Your task to perform on an android device: toggle wifi Image 0: 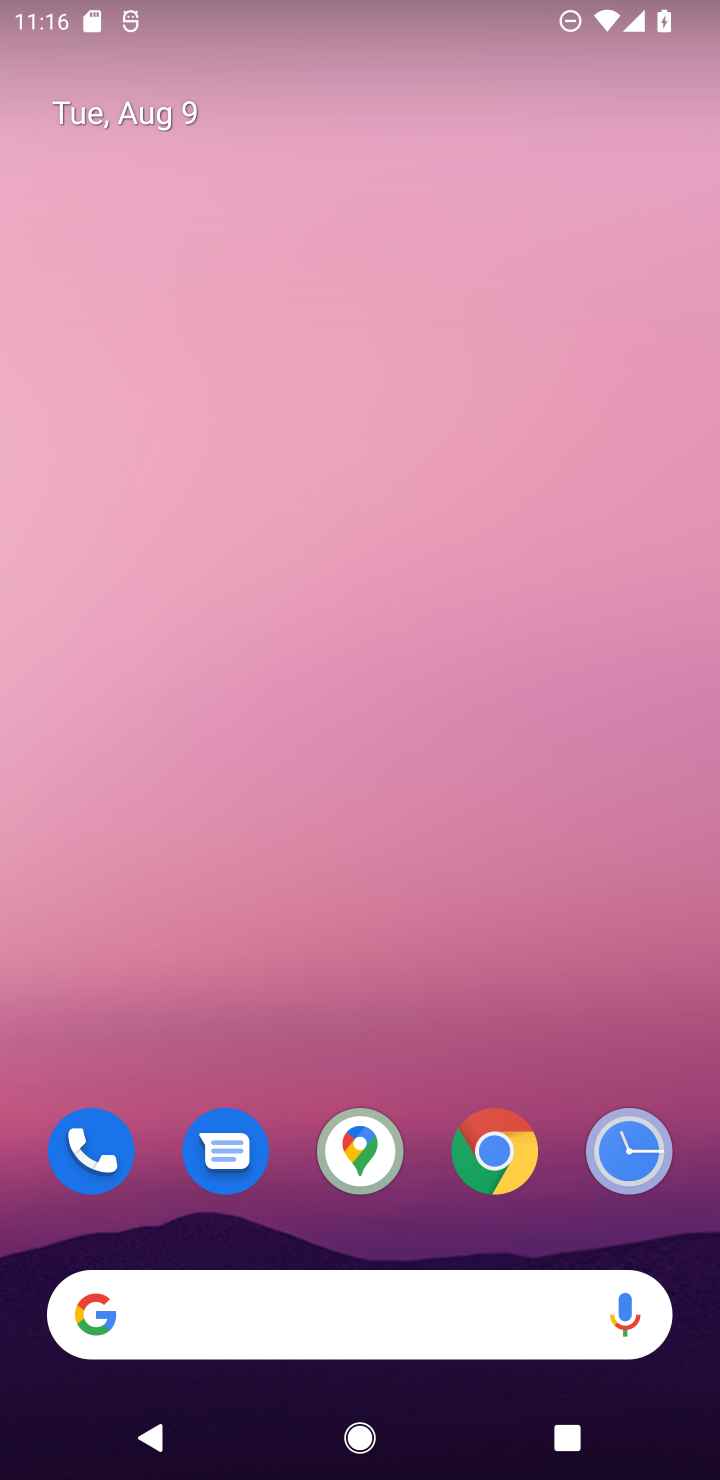
Step 0: drag from (196, 7) to (199, 1247)
Your task to perform on an android device: toggle wifi Image 1: 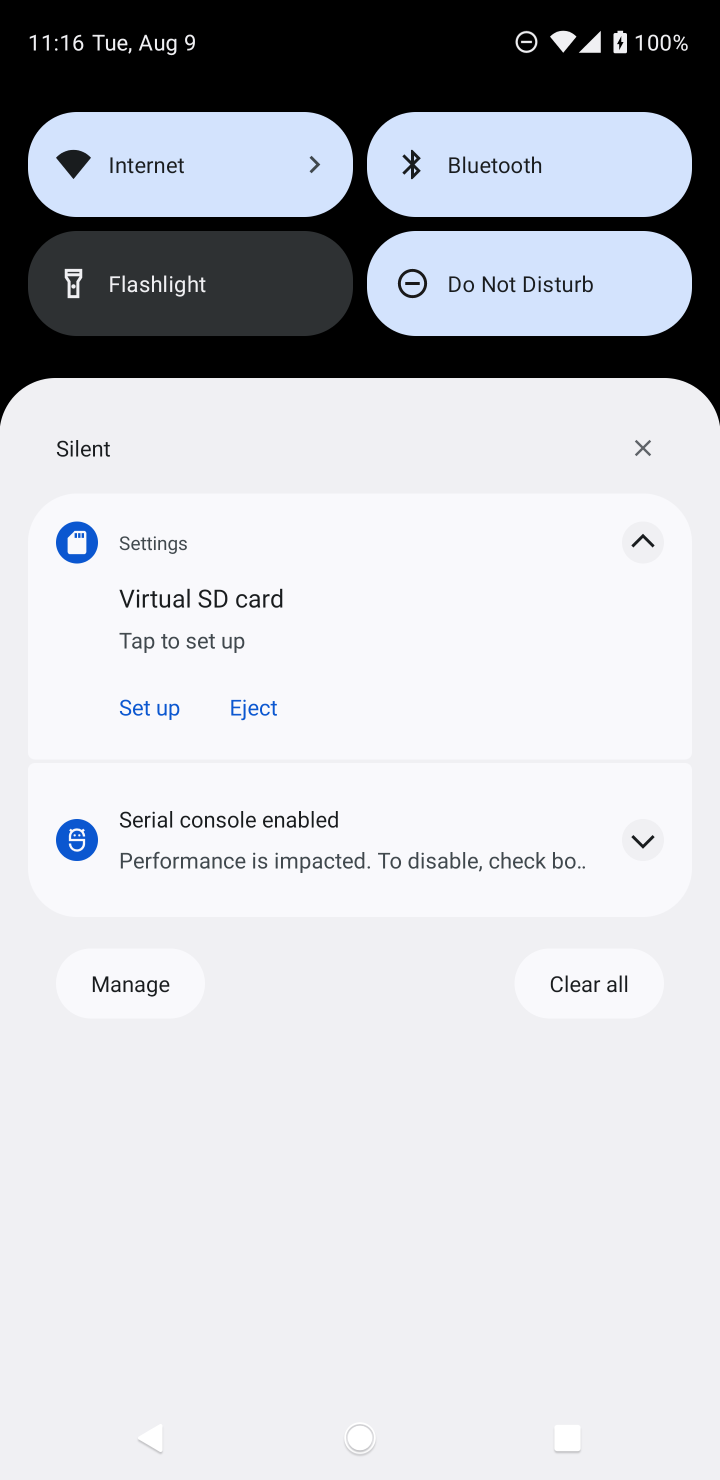
Step 1: click (306, 162)
Your task to perform on an android device: toggle wifi Image 2: 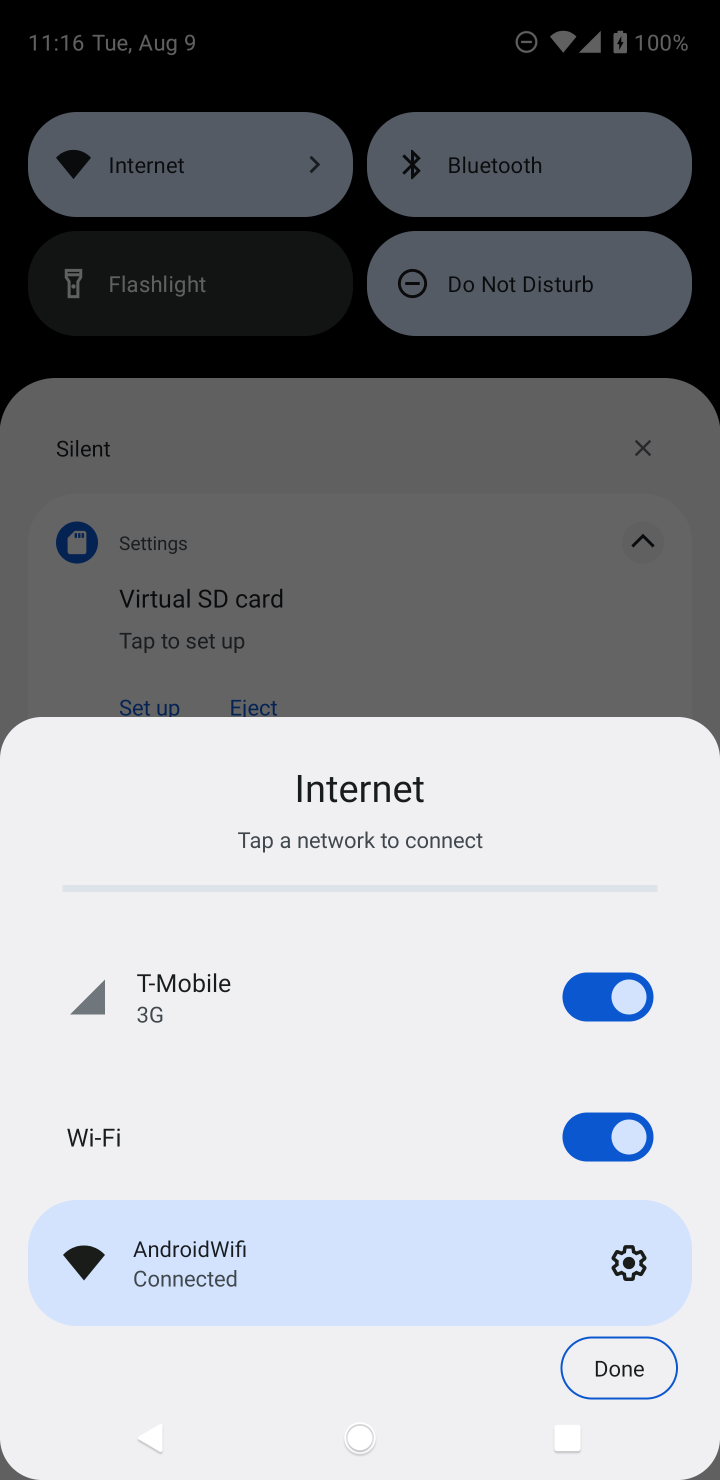
Step 2: click (603, 1130)
Your task to perform on an android device: toggle wifi Image 3: 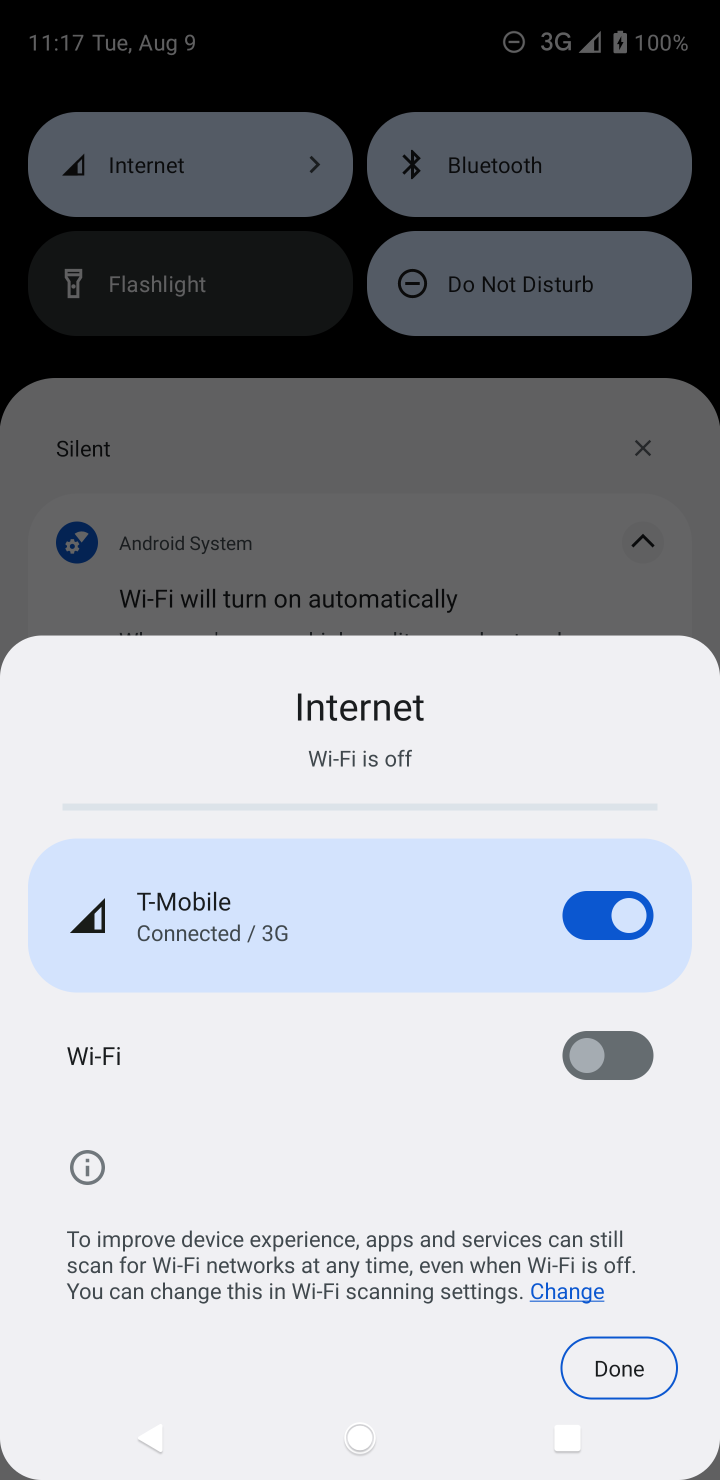
Step 3: task complete